Your task to perform on an android device: allow cookies in the chrome app Image 0: 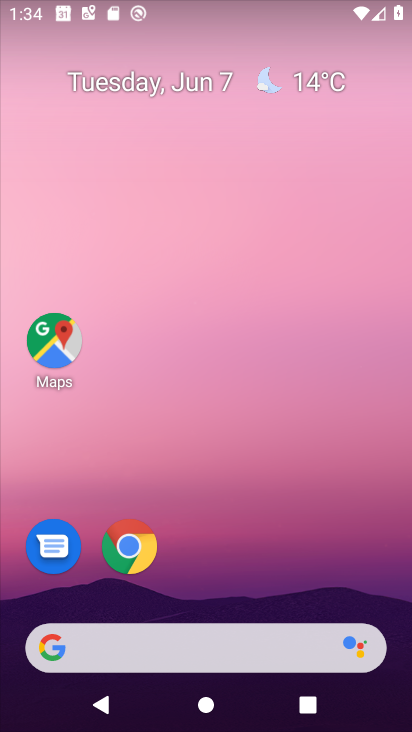
Step 0: click (129, 549)
Your task to perform on an android device: allow cookies in the chrome app Image 1: 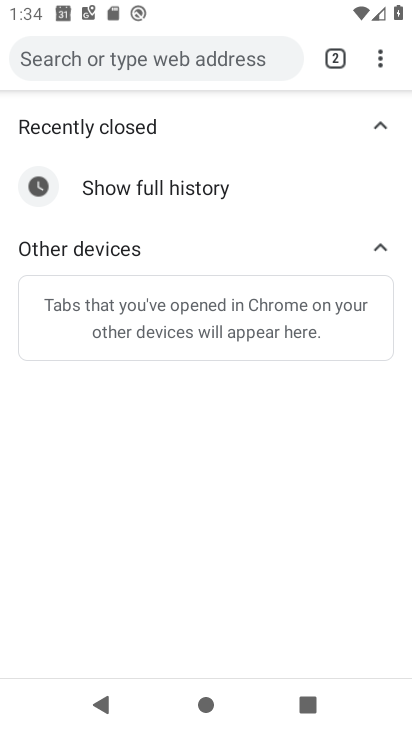
Step 1: drag from (380, 58) to (188, 486)
Your task to perform on an android device: allow cookies in the chrome app Image 2: 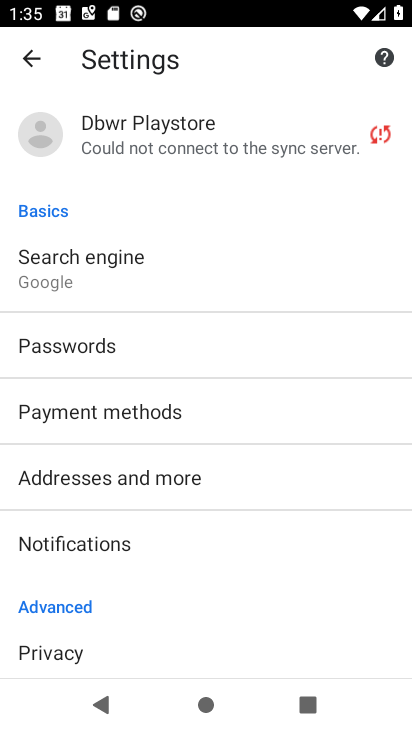
Step 2: drag from (280, 624) to (279, 219)
Your task to perform on an android device: allow cookies in the chrome app Image 3: 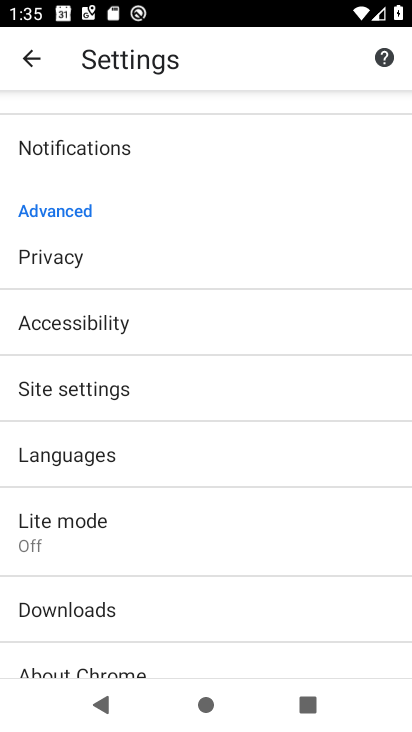
Step 3: click (136, 382)
Your task to perform on an android device: allow cookies in the chrome app Image 4: 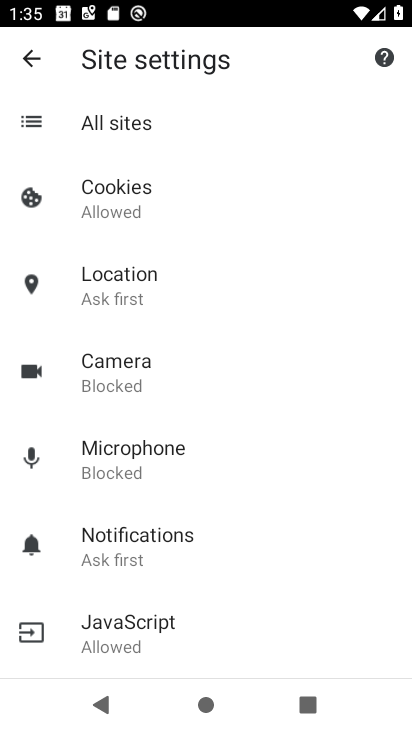
Step 4: click (134, 190)
Your task to perform on an android device: allow cookies in the chrome app Image 5: 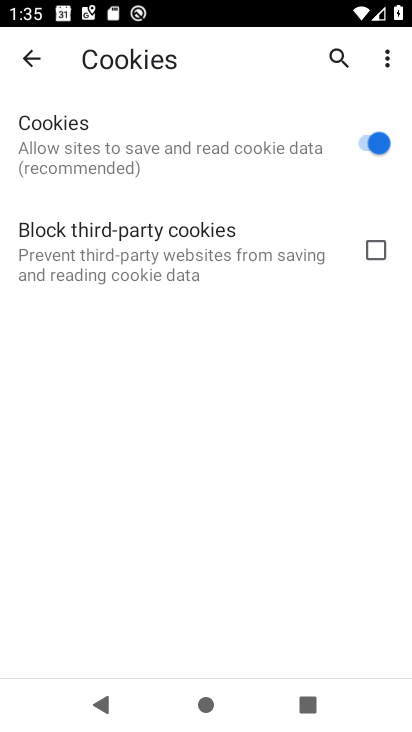
Step 5: task complete